Your task to perform on an android device: open a bookmark in the chrome app Image 0: 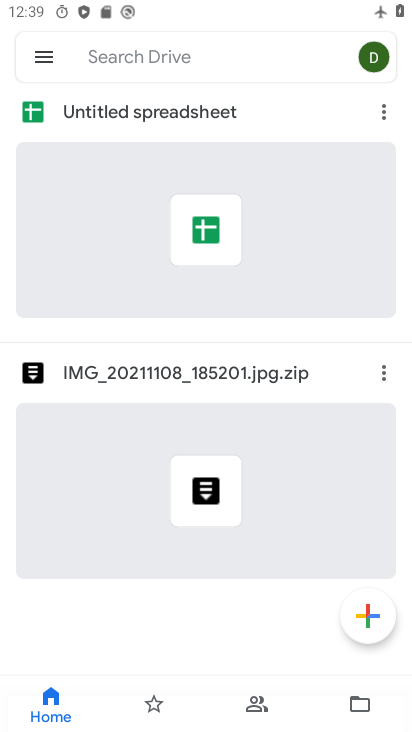
Step 0: press home button
Your task to perform on an android device: open a bookmark in the chrome app Image 1: 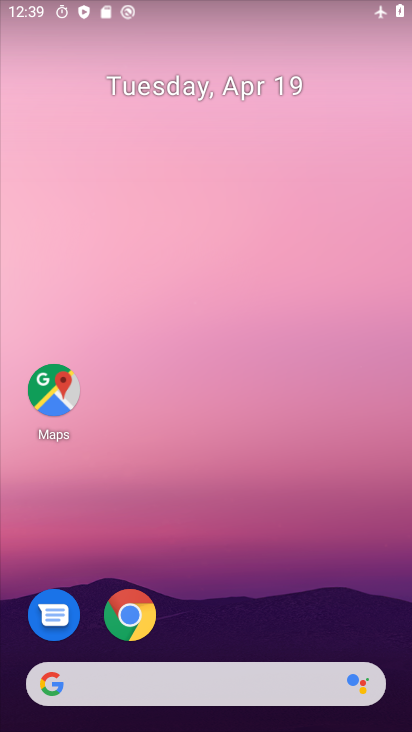
Step 1: drag from (318, 573) to (316, 59)
Your task to perform on an android device: open a bookmark in the chrome app Image 2: 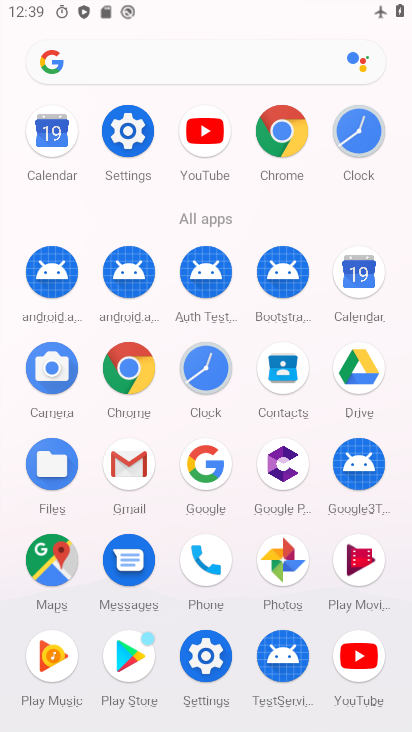
Step 2: click (139, 375)
Your task to perform on an android device: open a bookmark in the chrome app Image 3: 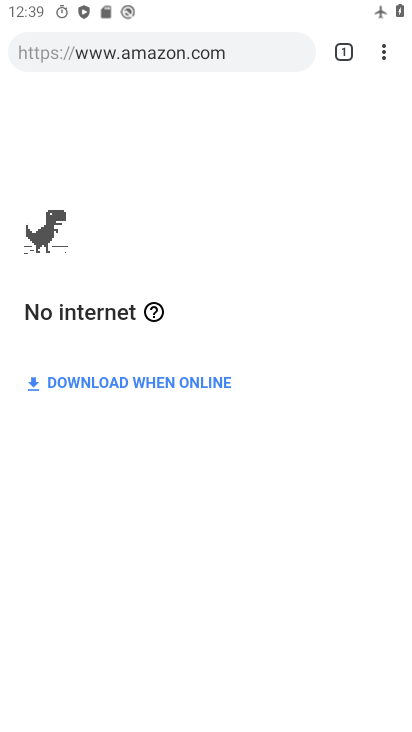
Step 3: click (383, 59)
Your task to perform on an android device: open a bookmark in the chrome app Image 4: 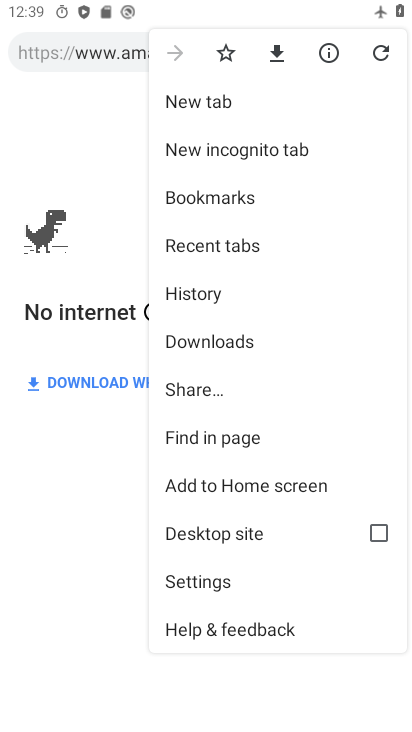
Step 4: click (233, 196)
Your task to perform on an android device: open a bookmark in the chrome app Image 5: 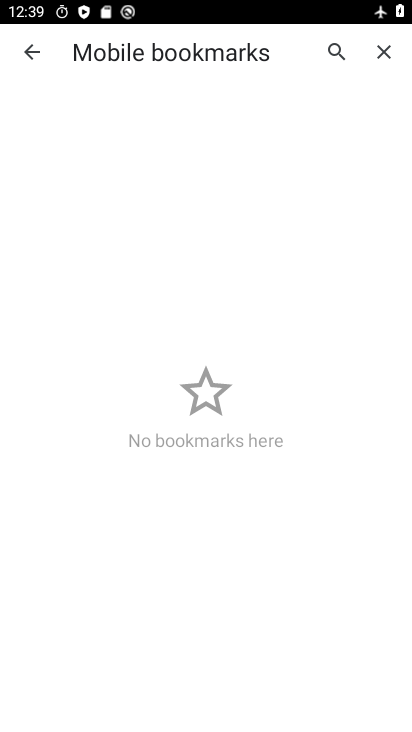
Step 5: task complete